Your task to perform on an android device: What's the weather going to be this weekend? Image 0: 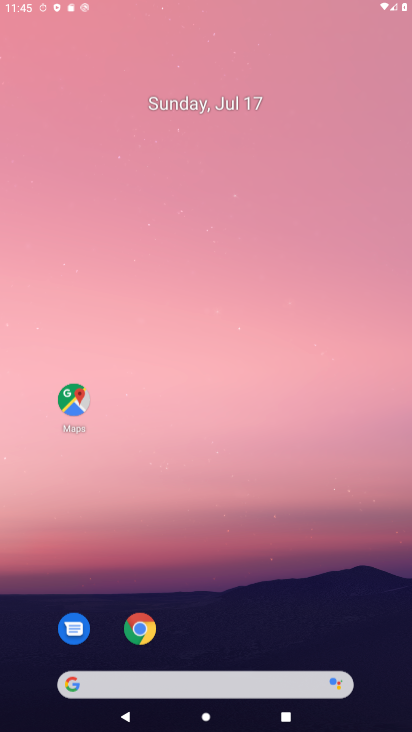
Step 0: press home button
Your task to perform on an android device: What's the weather going to be this weekend? Image 1: 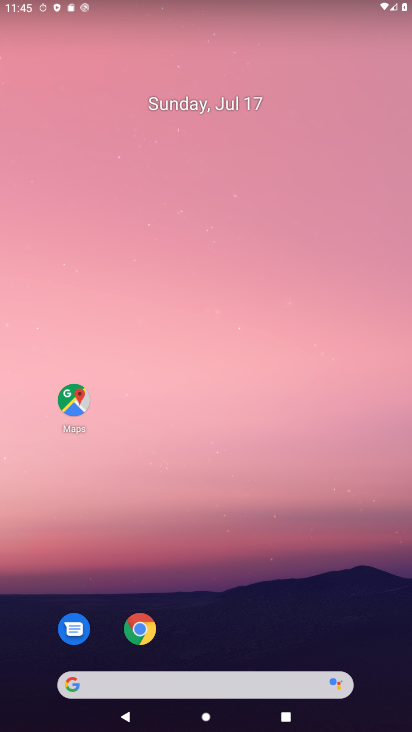
Step 1: drag from (217, 643) to (274, 157)
Your task to perform on an android device: What's the weather going to be this weekend? Image 2: 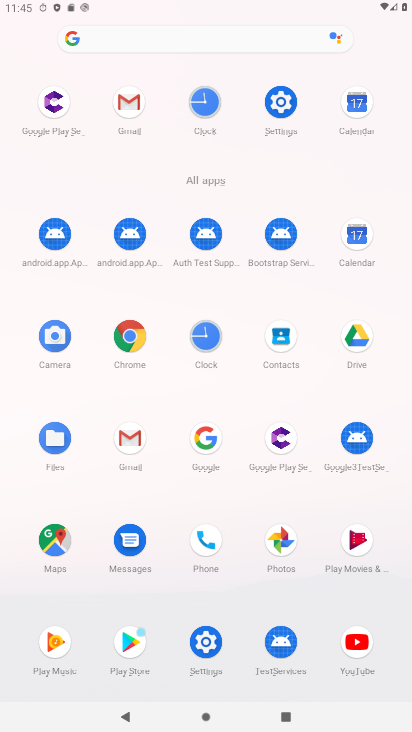
Step 2: press home button
Your task to perform on an android device: What's the weather going to be this weekend? Image 3: 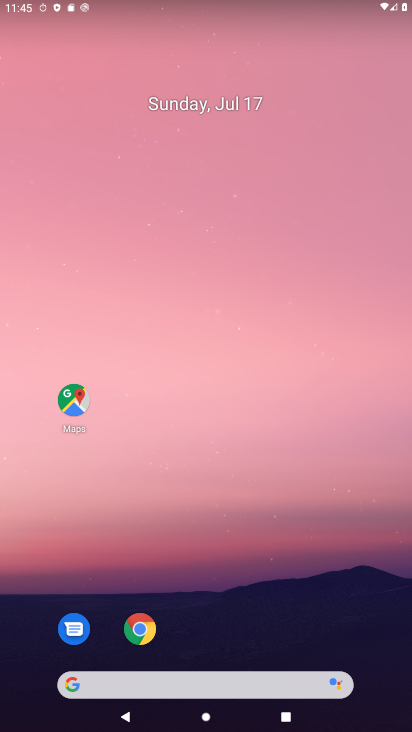
Step 3: click (160, 683)
Your task to perform on an android device: What's the weather going to be this weekend? Image 4: 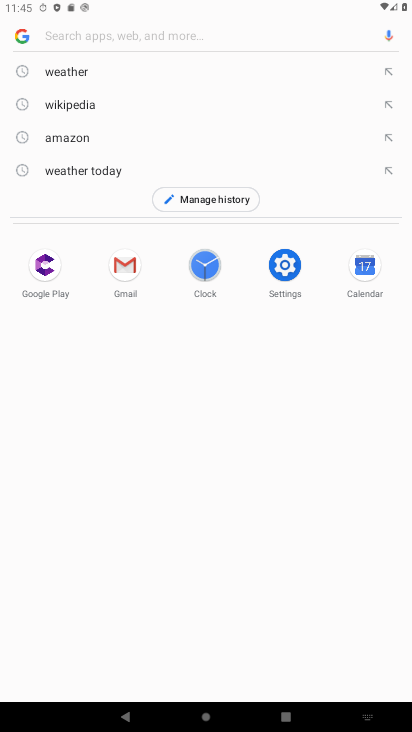
Step 4: click (91, 63)
Your task to perform on an android device: What's the weather going to be this weekend? Image 5: 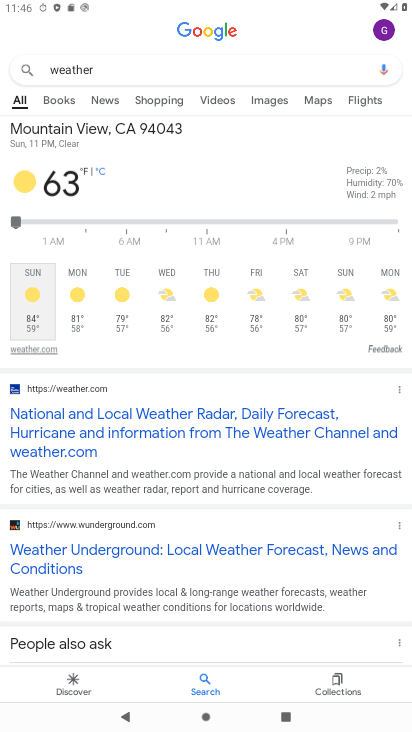
Step 5: click (348, 282)
Your task to perform on an android device: What's the weather going to be this weekend? Image 6: 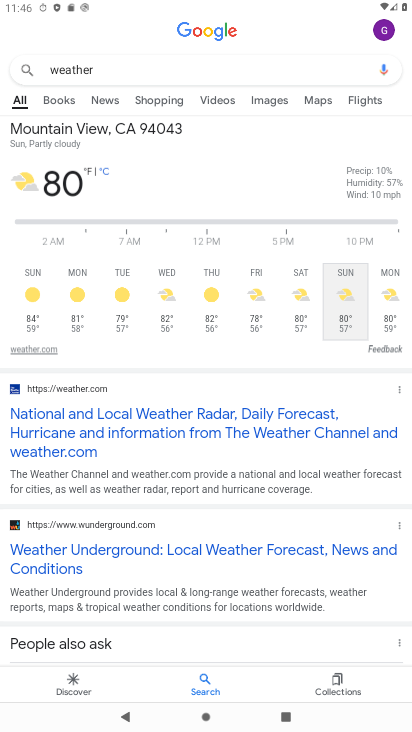
Step 6: click (299, 290)
Your task to perform on an android device: What's the weather going to be this weekend? Image 7: 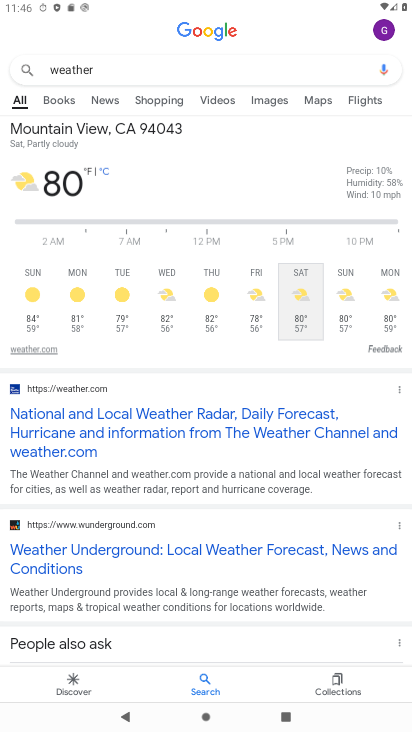
Step 7: task complete